Your task to perform on an android device: Open calendar and show me the fourth week of next month Image 0: 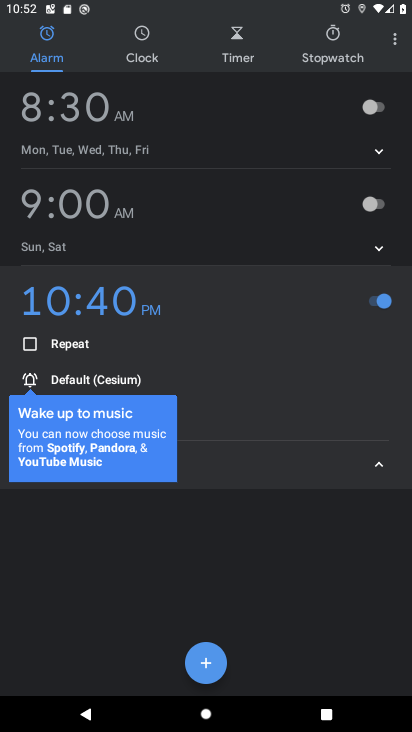
Step 0: press home button
Your task to perform on an android device: Open calendar and show me the fourth week of next month Image 1: 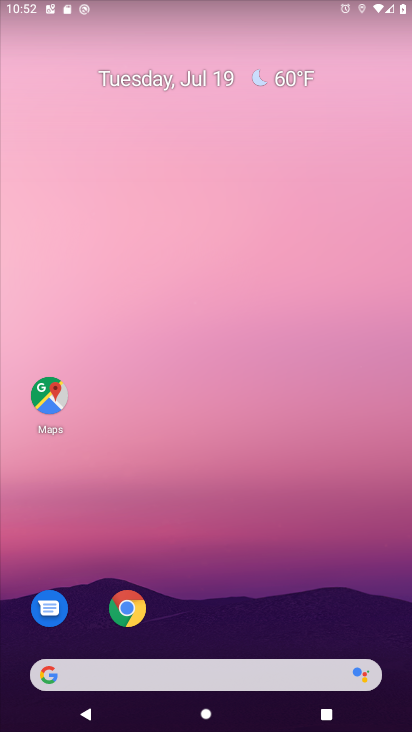
Step 1: drag from (224, 635) to (328, 0)
Your task to perform on an android device: Open calendar and show me the fourth week of next month Image 2: 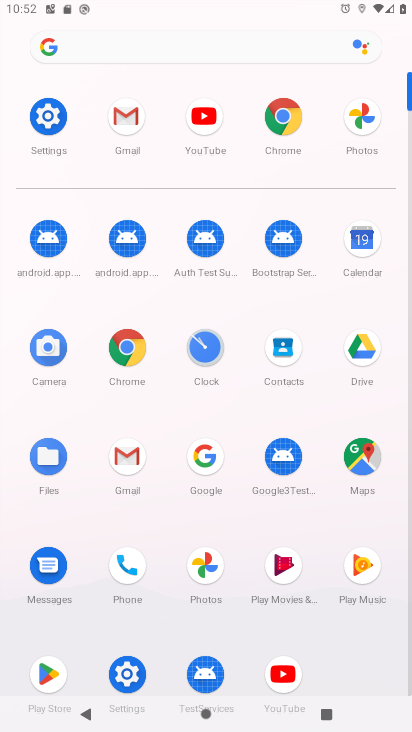
Step 2: click (368, 261)
Your task to perform on an android device: Open calendar and show me the fourth week of next month Image 3: 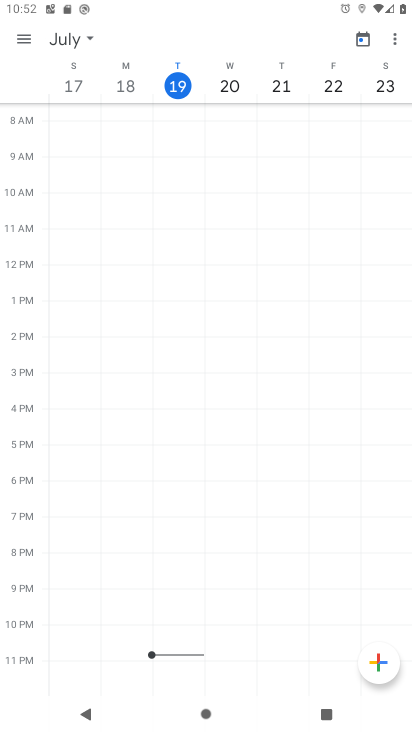
Step 3: click (21, 36)
Your task to perform on an android device: Open calendar and show me the fourth week of next month Image 4: 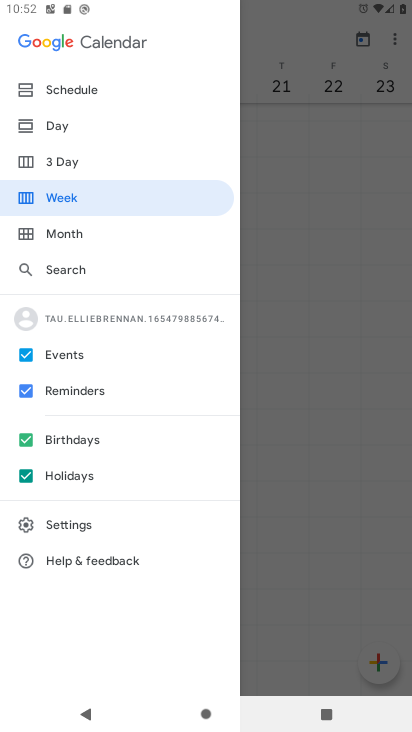
Step 4: click (72, 188)
Your task to perform on an android device: Open calendar and show me the fourth week of next month Image 5: 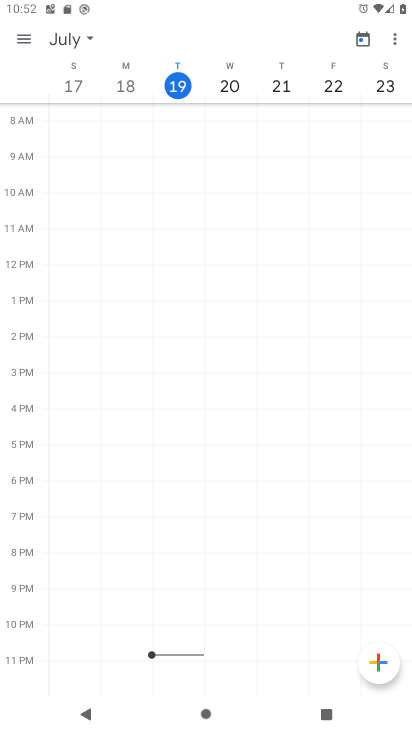
Step 5: task complete